Your task to perform on an android device: Open internet settings Image 0: 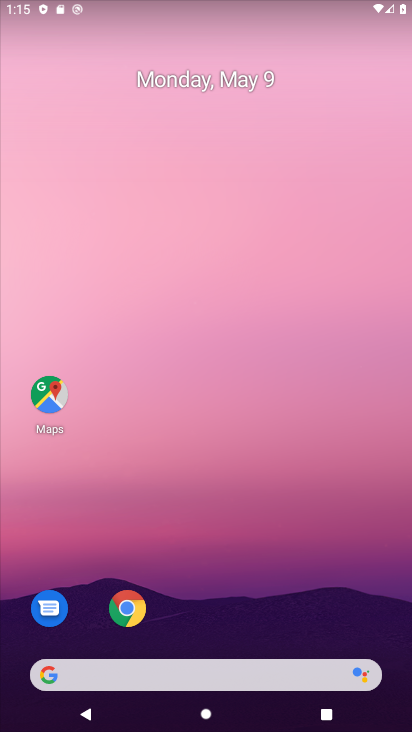
Step 0: drag from (251, 606) to (306, 0)
Your task to perform on an android device: Open internet settings Image 1: 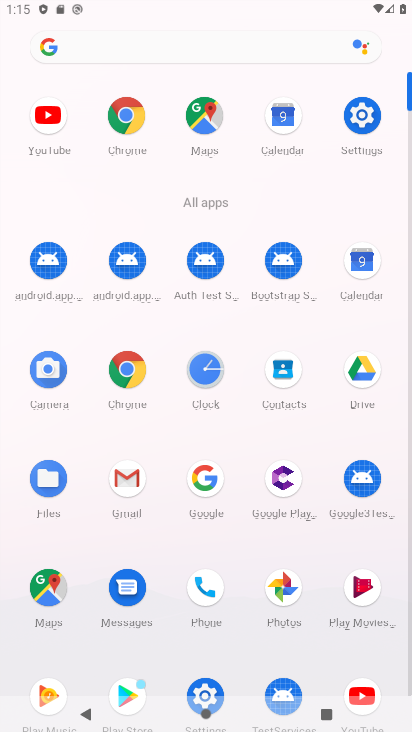
Step 1: click (375, 123)
Your task to perform on an android device: Open internet settings Image 2: 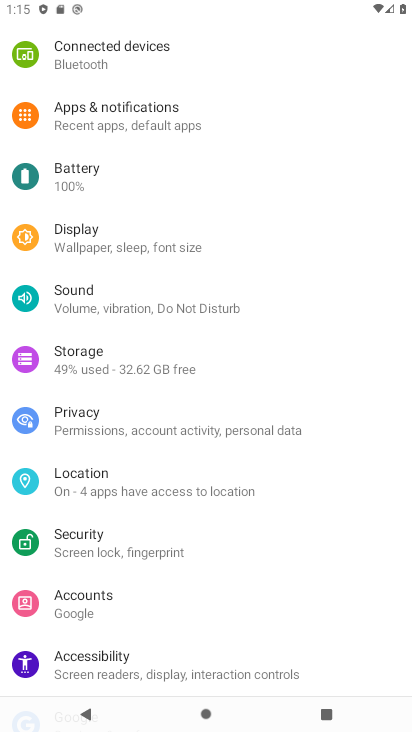
Step 2: drag from (149, 69) to (278, 462)
Your task to perform on an android device: Open internet settings Image 3: 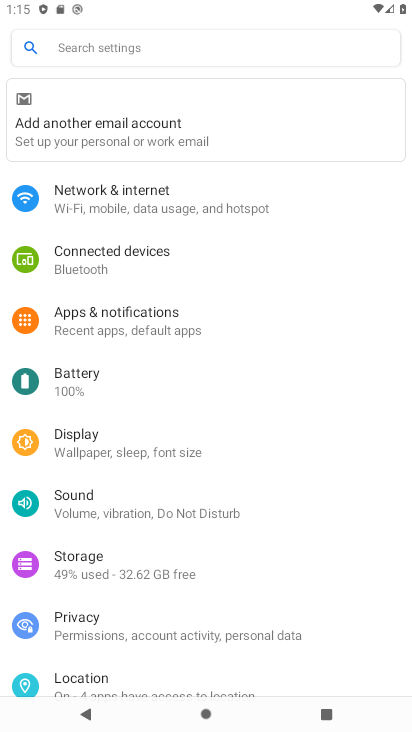
Step 3: click (159, 198)
Your task to perform on an android device: Open internet settings Image 4: 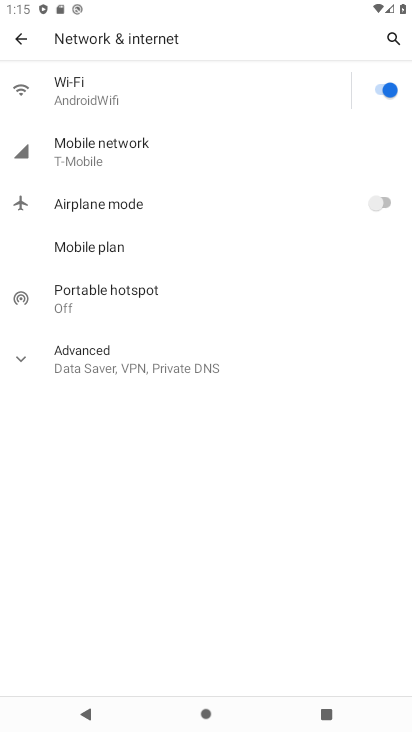
Step 4: task complete